Your task to perform on an android device: Go to network settings Image 0: 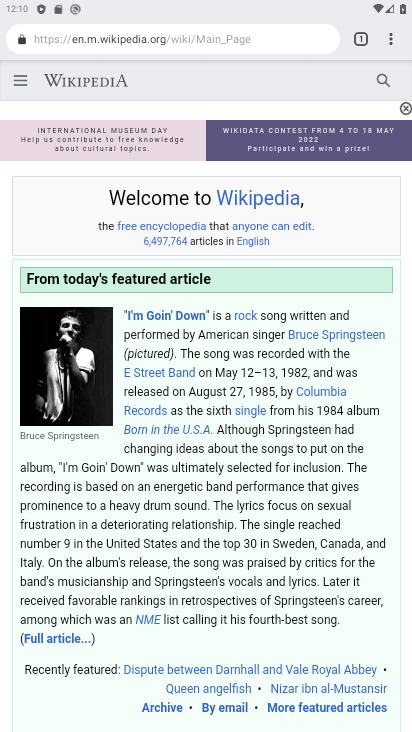
Step 0: press home button
Your task to perform on an android device: Go to network settings Image 1: 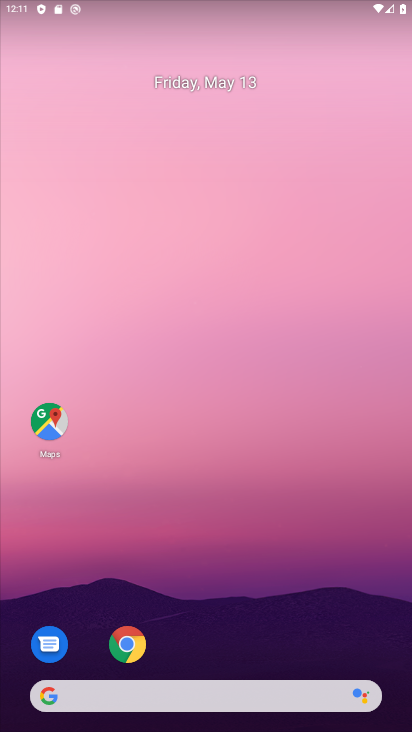
Step 1: drag from (244, 604) to (204, 103)
Your task to perform on an android device: Go to network settings Image 2: 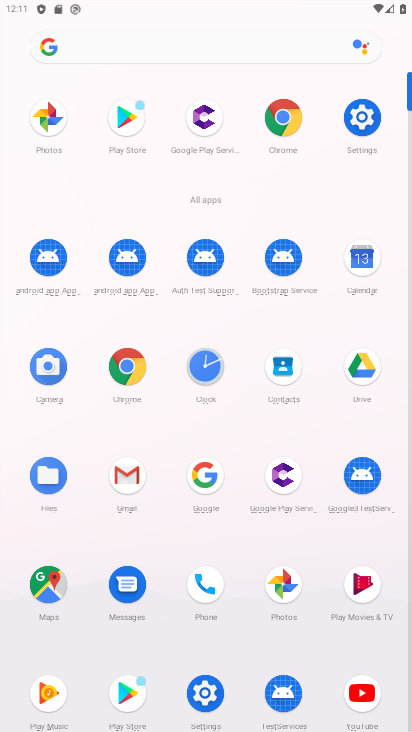
Step 2: click (368, 132)
Your task to perform on an android device: Go to network settings Image 3: 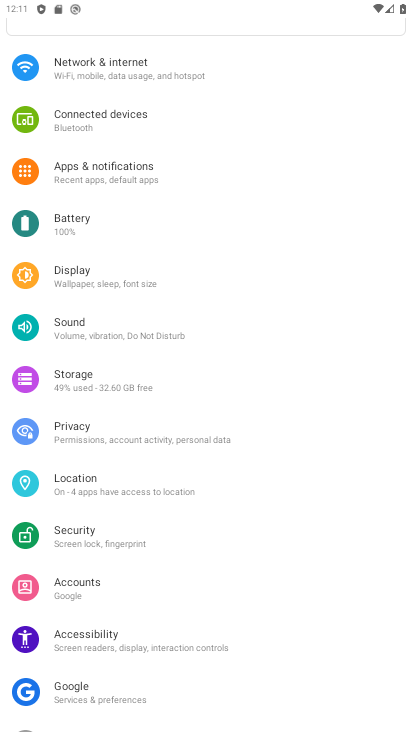
Step 3: click (138, 72)
Your task to perform on an android device: Go to network settings Image 4: 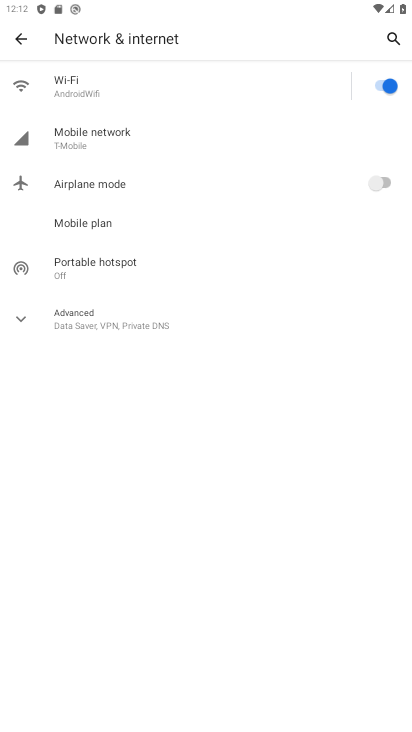
Step 4: task complete